Your task to perform on an android device: toggle translation in the chrome app Image 0: 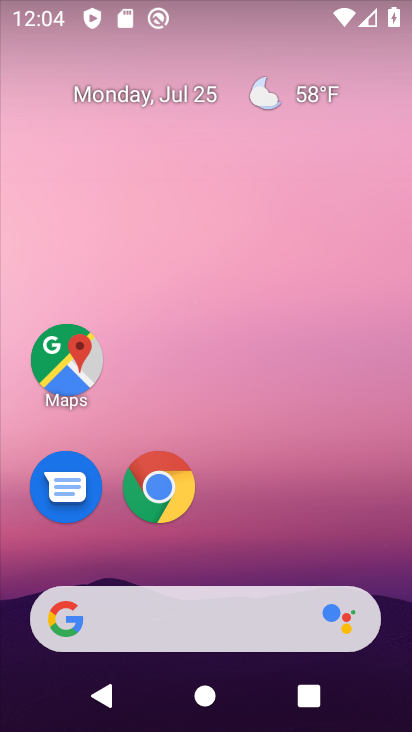
Step 0: click (161, 480)
Your task to perform on an android device: toggle translation in the chrome app Image 1: 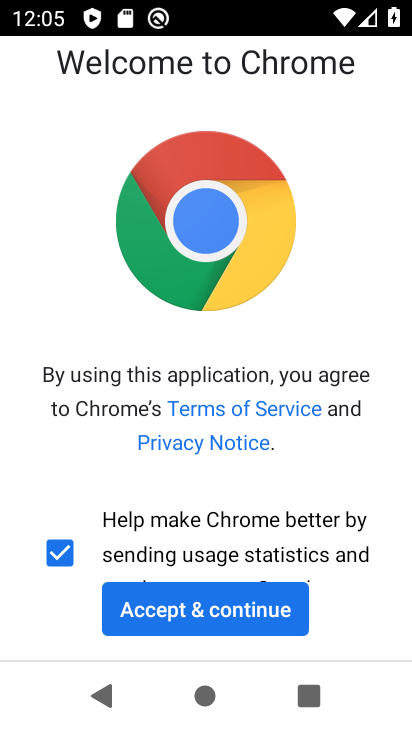
Step 1: click (200, 613)
Your task to perform on an android device: toggle translation in the chrome app Image 2: 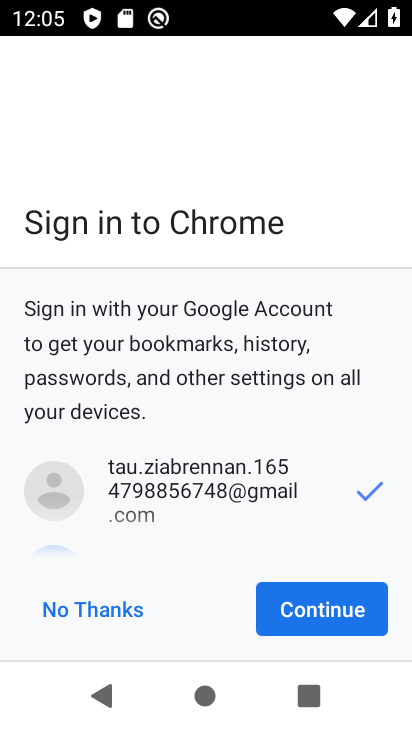
Step 2: click (320, 606)
Your task to perform on an android device: toggle translation in the chrome app Image 3: 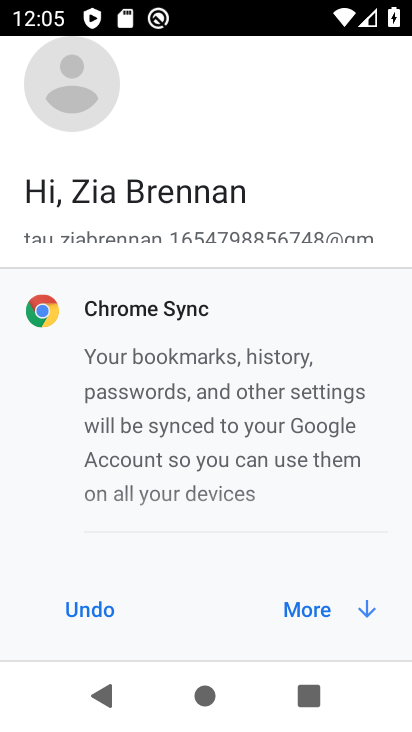
Step 3: click (322, 605)
Your task to perform on an android device: toggle translation in the chrome app Image 4: 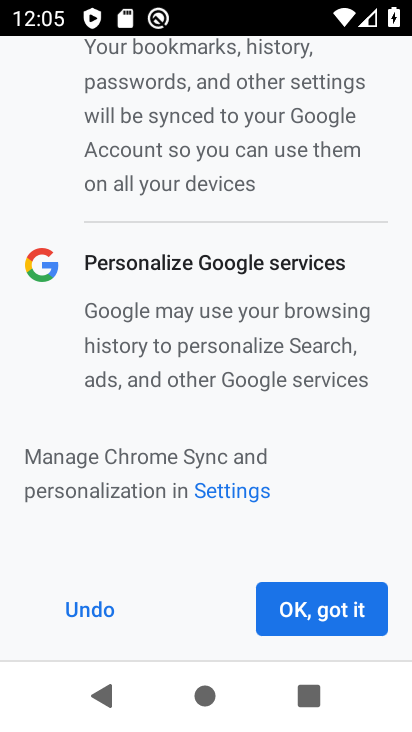
Step 4: click (328, 612)
Your task to perform on an android device: toggle translation in the chrome app Image 5: 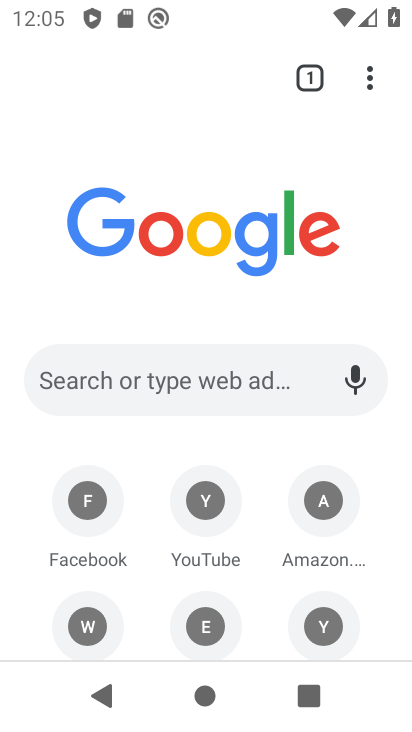
Step 5: drag from (363, 73) to (98, 549)
Your task to perform on an android device: toggle translation in the chrome app Image 6: 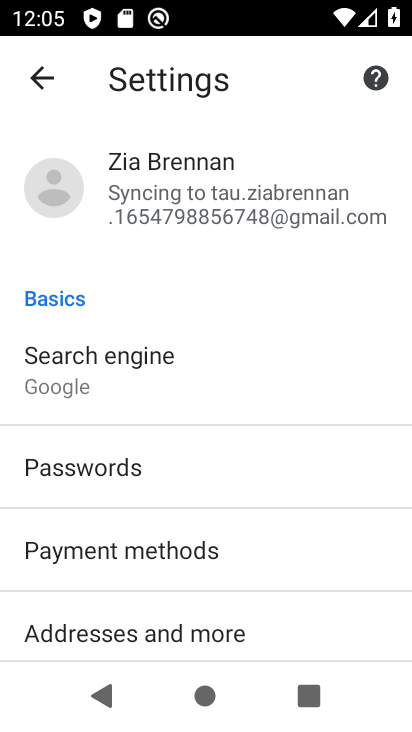
Step 6: drag from (152, 619) to (254, 111)
Your task to perform on an android device: toggle translation in the chrome app Image 7: 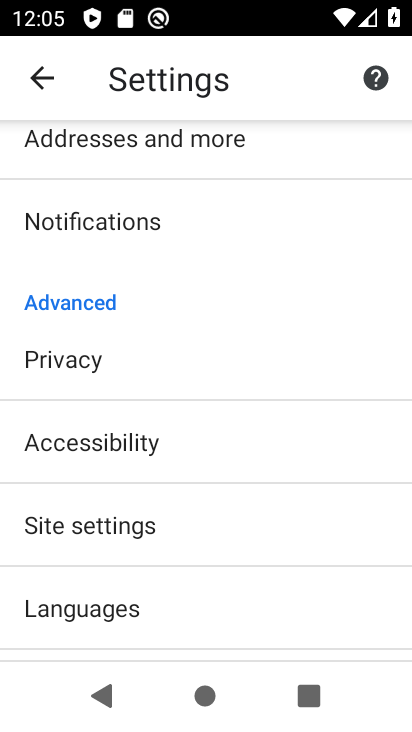
Step 7: drag from (146, 572) to (222, 332)
Your task to perform on an android device: toggle translation in the chrome app Image 8: 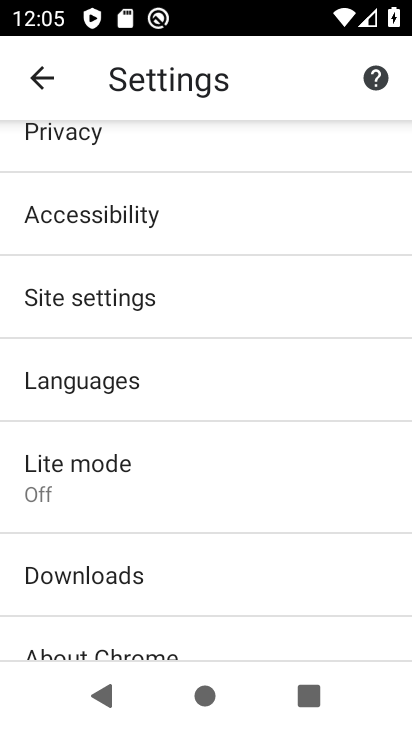
Step 8: drag from (256, 564) to (351, 202)
Your task to perform on an android device: toggle translation in the chrome app Image 9: 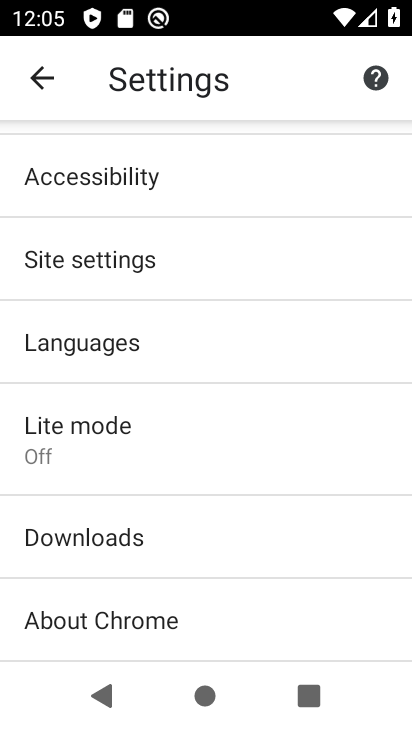
Step 9: click (115, 331)
Your task to perform on an android device: toggle translation in the chrome app Image 10: 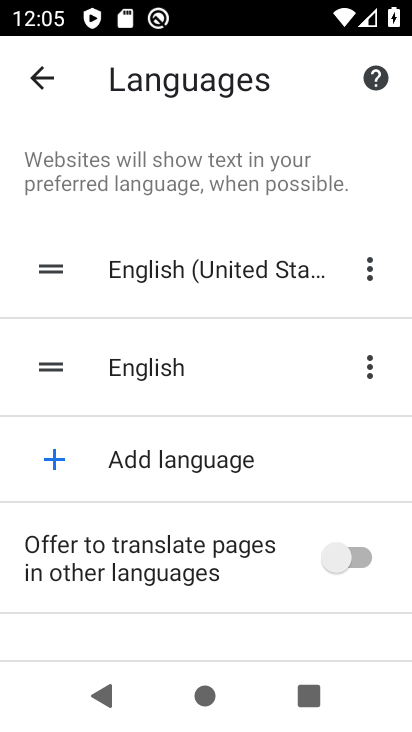
Step 10: click (349, 558)
Your task to perform on an android device: toggle translation in the chrome app Image 11: 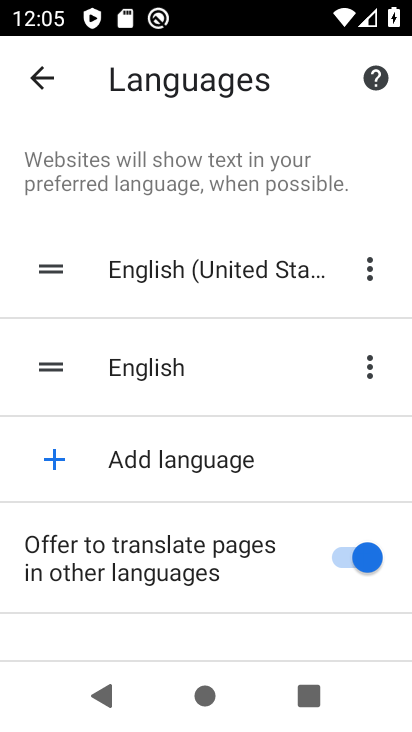
Step 11: task complete